Your task to perform on an android device: install app "Google Maps" Image 0: 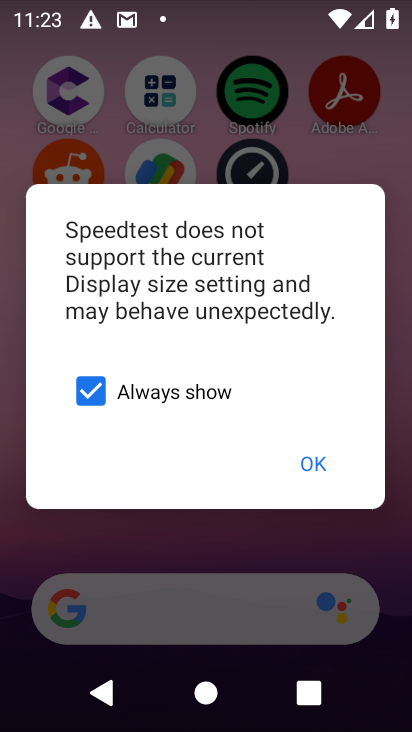
Step 0: click (312, 461)
Your task to perform on an android device: install app "Google Maps" Image 1: 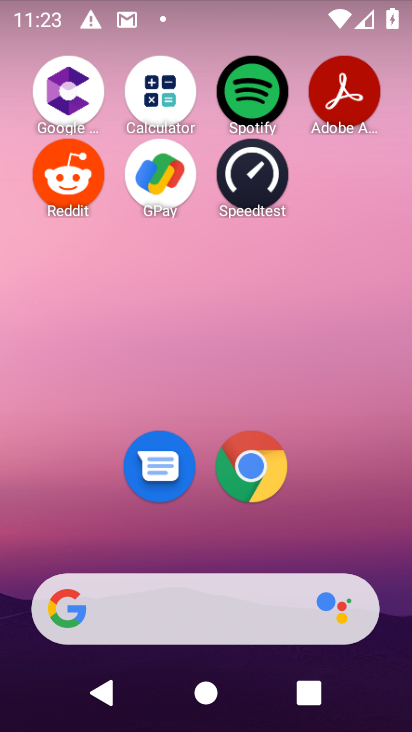
Step 1: task complete